Your task to perform on an android device: turn on showing notifications on the lock screen Image 0: 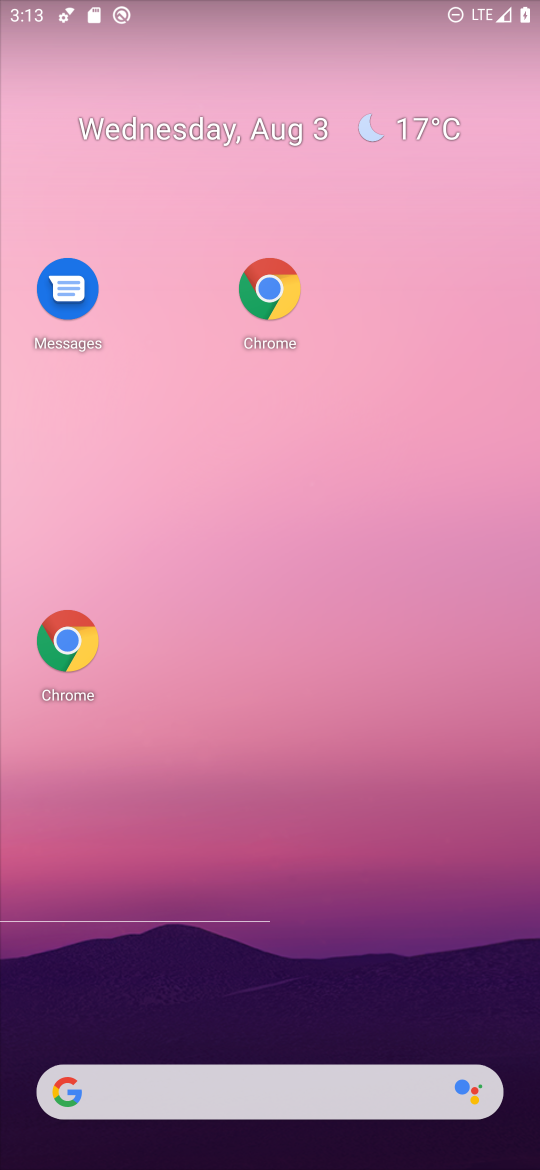
Step 0: drag from (329, 992) to (359, 166)
Your task to perform on an android device: turn on showing notifications on the lock screen Image 1: 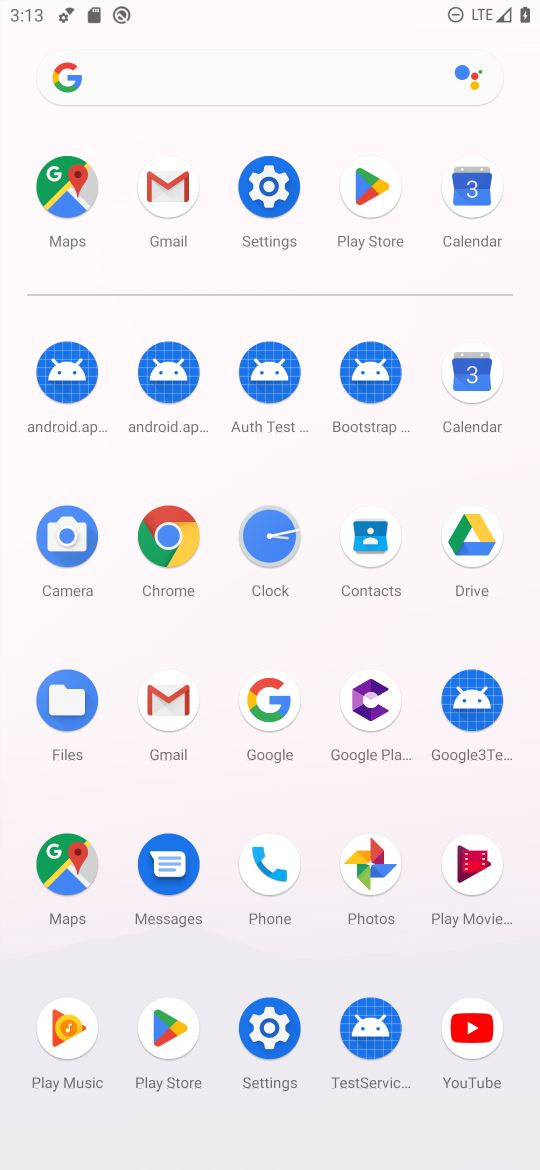
Step 1: click (273, 1069)
Your task to perform on an android device: turn on showing notifications on the lock screen Image 2: 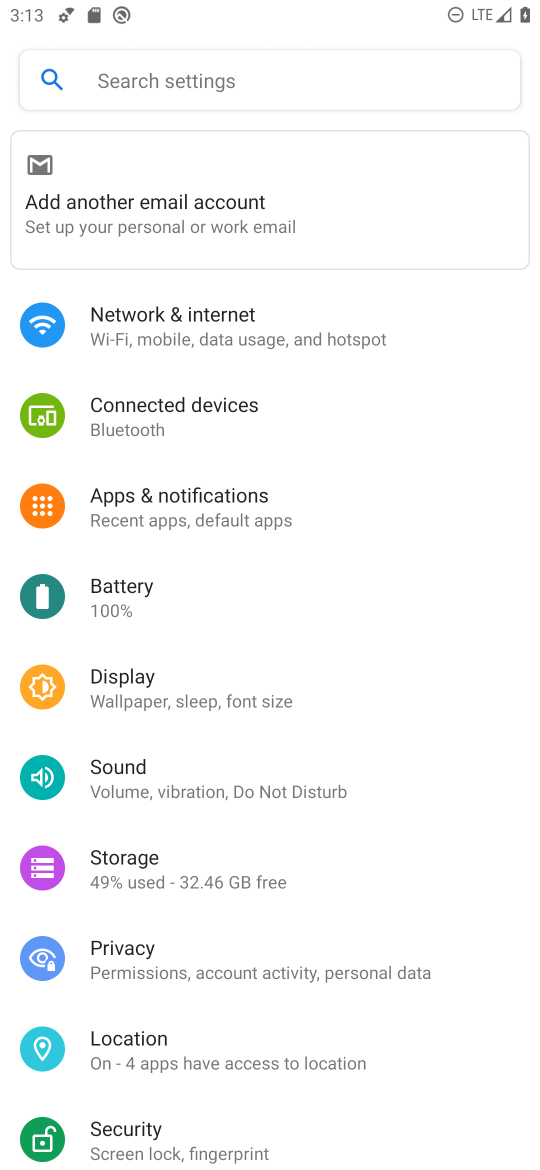
Step 2: click (223, 538)
Your task to perform on an android device: turn on showing notifications on the lock screen Image 3: 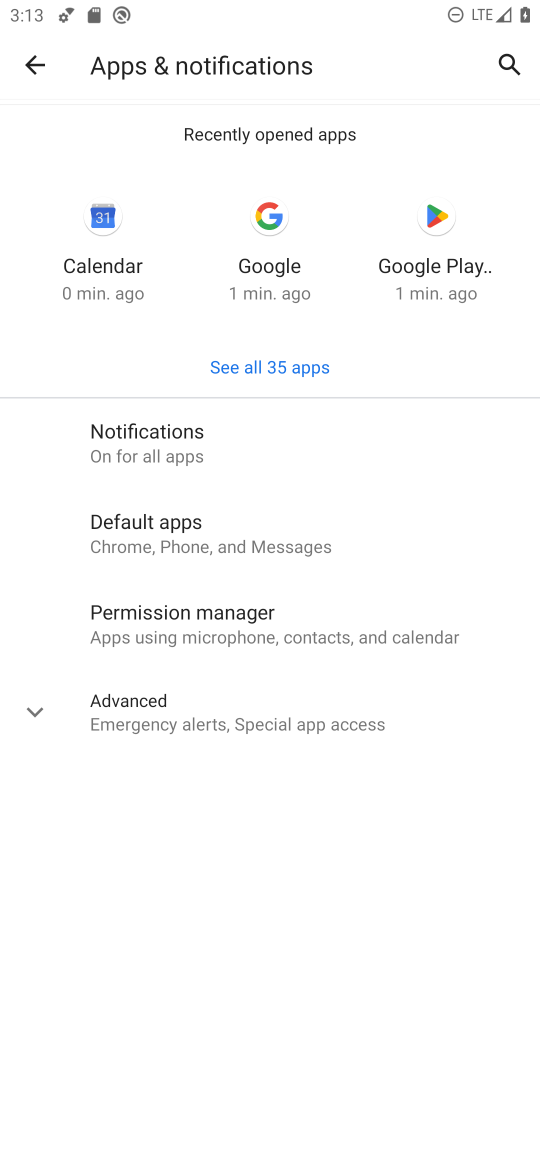
Step 3: task complete